Your task to perform on an android device: toggle priority inbox in the gmail app Image 0: 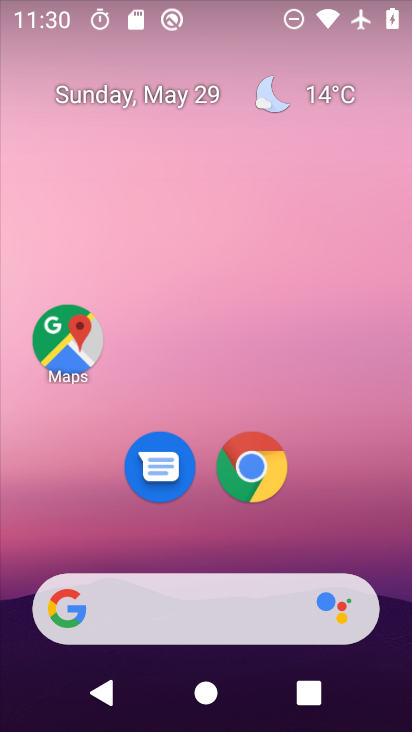
Step 0: drag from (206, 550) to (174, 176)
Your task to perform on an android device: toggle priority inbox in the gmail app Image 1: 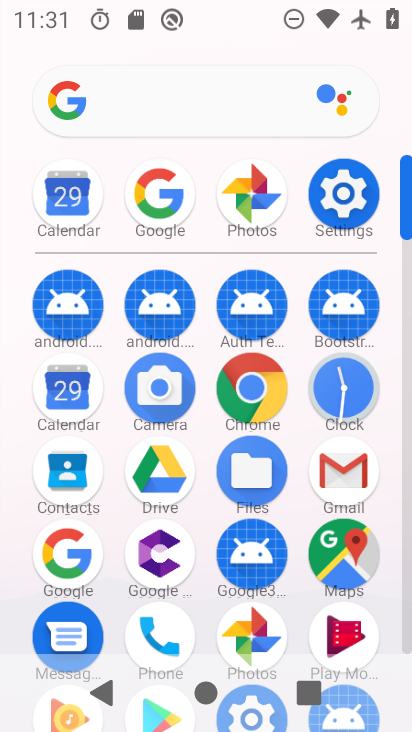
Step 1: click (335, 487)
Your task to perform on an android device: toggle priority inbox in the gmail app Image 2: 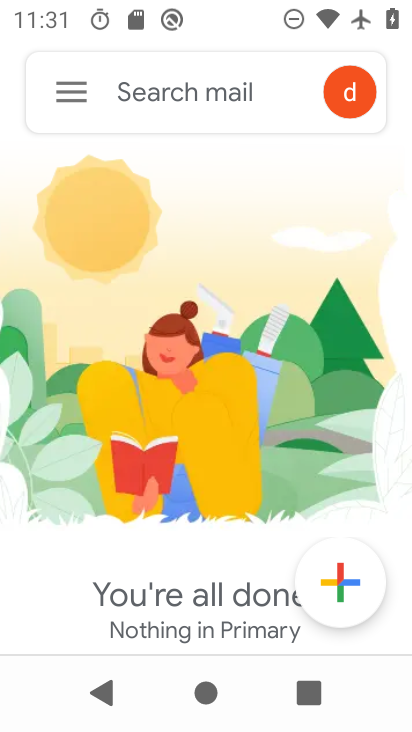
Step 2: click (63, 107)
Your task to perform on an android device: toggle priority inbox in the gmail app Image 3: 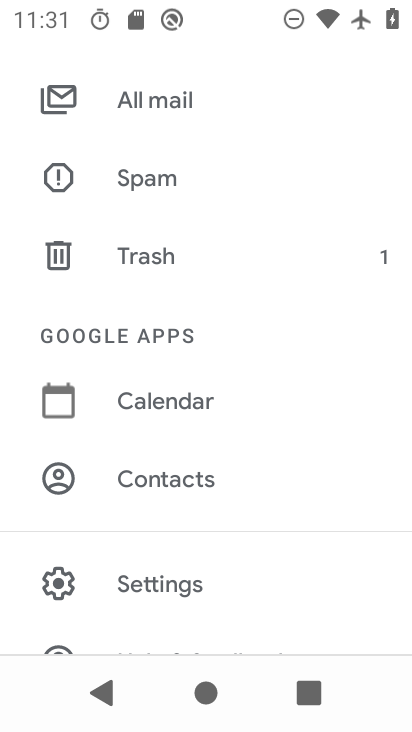
Step 3: drag from (158, 530) to (175, 241)
Your task to perform on an android device: toggle priority inbox in the gmail app Image 4: 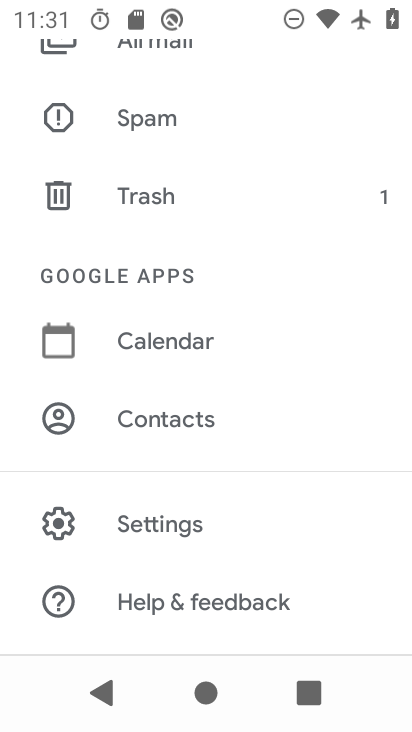
Step 4: drag from (231, 536) to (242, 294)
Your task to perform on an android device: toggle priority inbox in the gmail app Image 5: 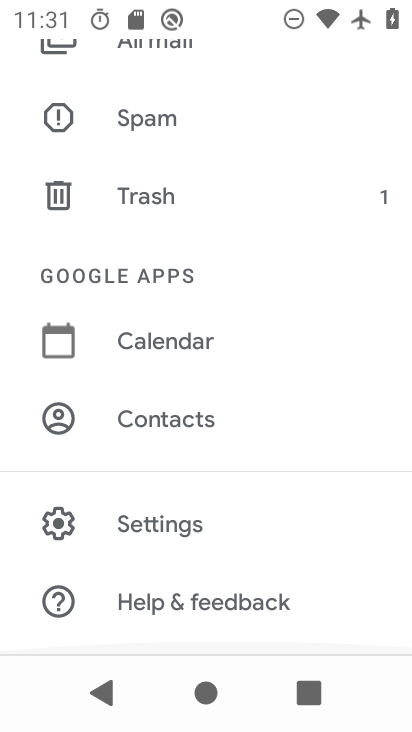
Step 5: click (200, 522)
Your task to perform on an android device: toggle priority inbox in the gmail app Image 6: 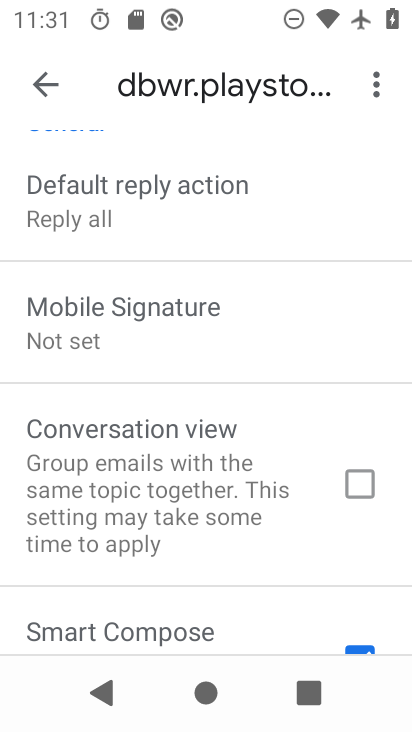
Step 6: drag from (206, 554) to (231, 587)
Your task to perform on an android device: toggle priority inbox in the gmail app Image 7: 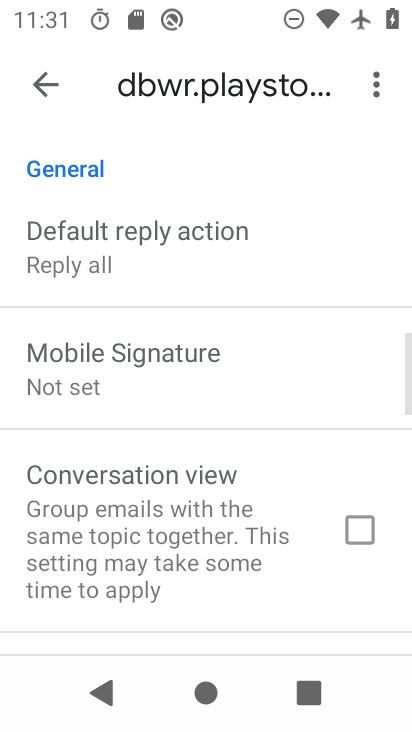
Step 7: drag from (176, 295) to (192, 491)
Your task to perform on an android device: toggle priority inbox in the gmail app Image 8: 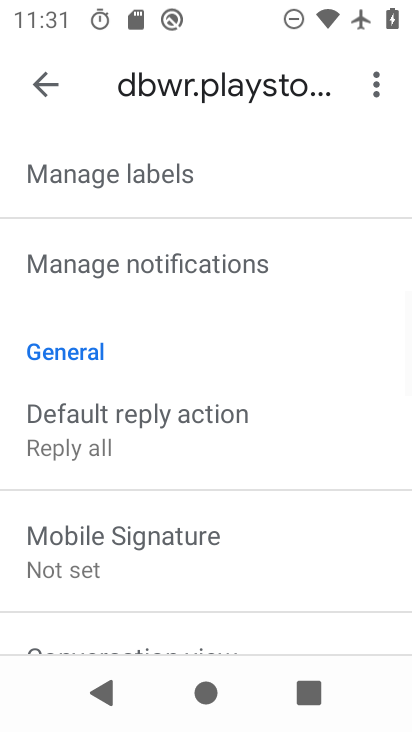
Step 8: drag from (198, 249) to (220, 535)
Your task to perform on an android device: toggle priority inbox in the gmail app Image 9: 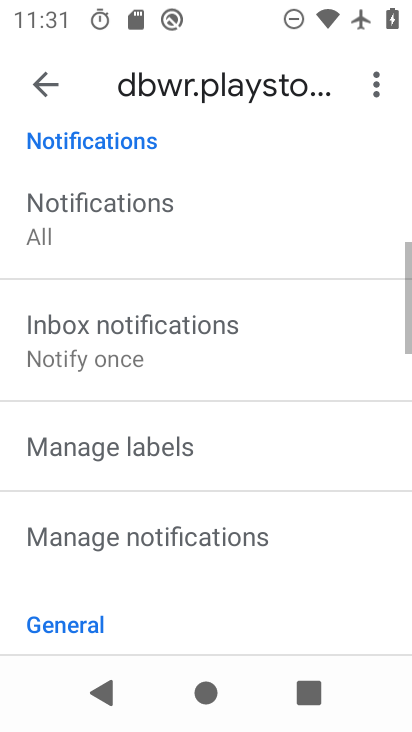
Step 9: drag from (222, 308) to (239, 446)
Your task to perform on an android device: toggle priority inbox in the gmail app Image 10: 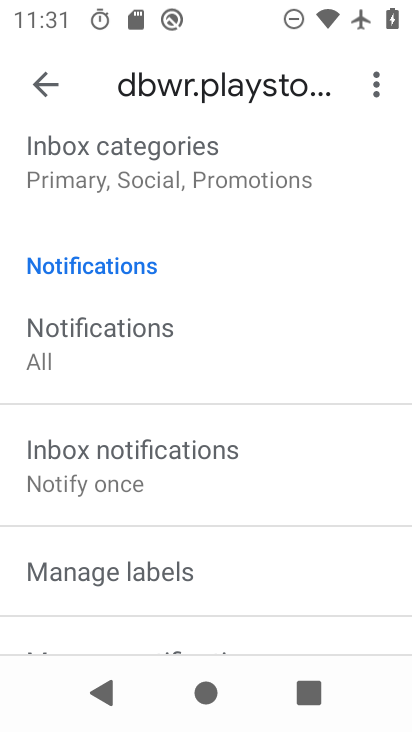
Step 10: drag from (244, 289) to (254, 460)
Your task to perform on an android device: toggle priority inbox in the gmail app Image 11: 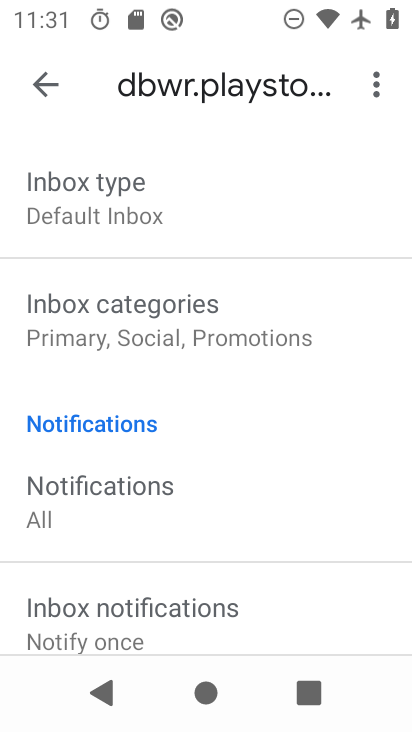
Step 11: drag from (222, 298) to (233, 463)
Your task to perform on an android device: toggle priority inbox in the gmail app Image 12: 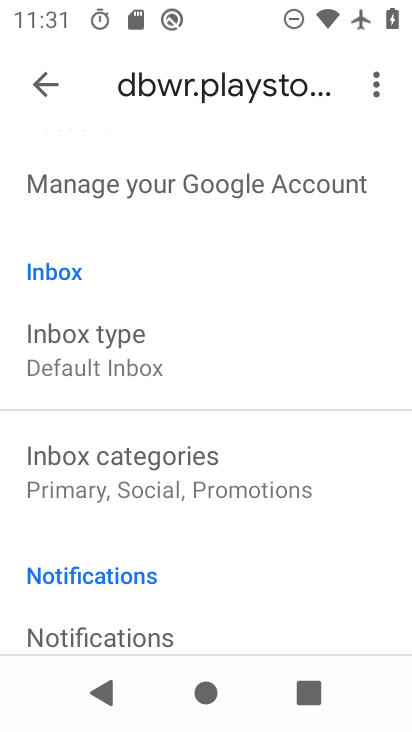
Step 12: drag from (223, 317) to (231, 564)
Your task to perform on an android device: toggle priority inbox in the gmail app Image 13: 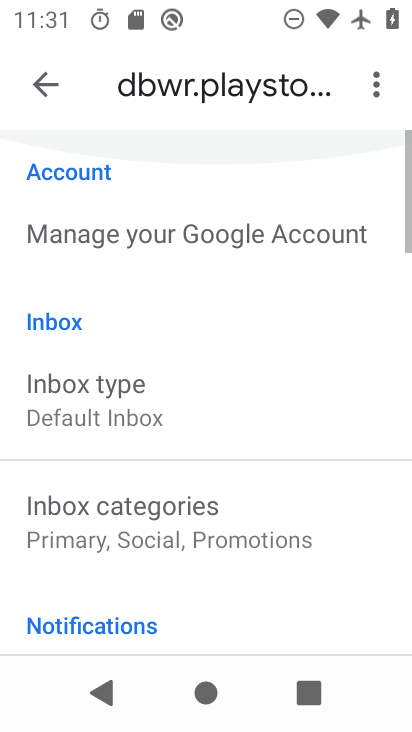
Step 13: drag from (238, 558) to (235, 419)
Your task to perform on an android device: toggle priority inbox in the gmail app Image 14: 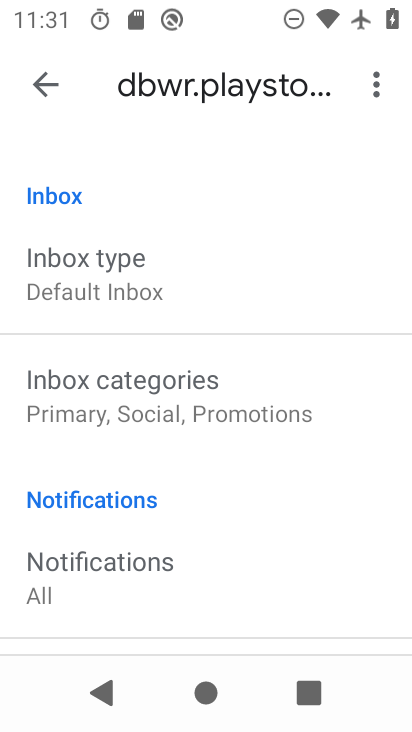
Step 14: click (134, 288)
Your task to perform on an android device: toggle priority inbox in the gmail app Image 15: 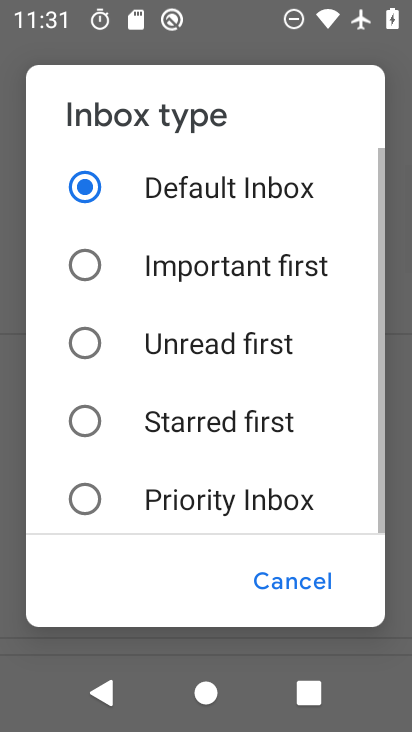
Step 15: click (171, 486)
Your task to perform on an android device: toggle priority inbox in the gmail app Image 16: 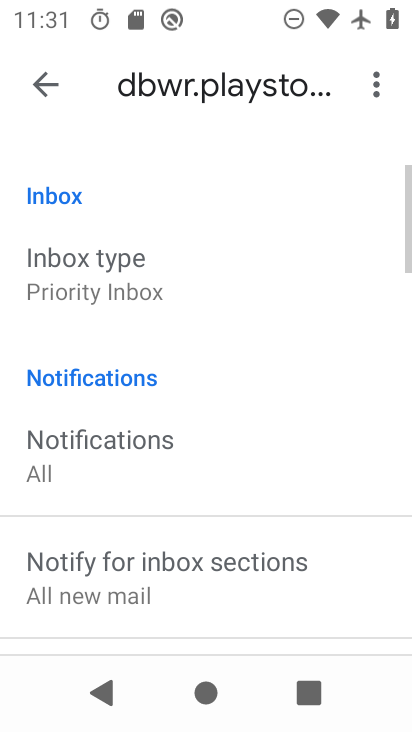
Step 16: task complete